Your task to perform on an android device: change the clock display to show seconds Image 0: 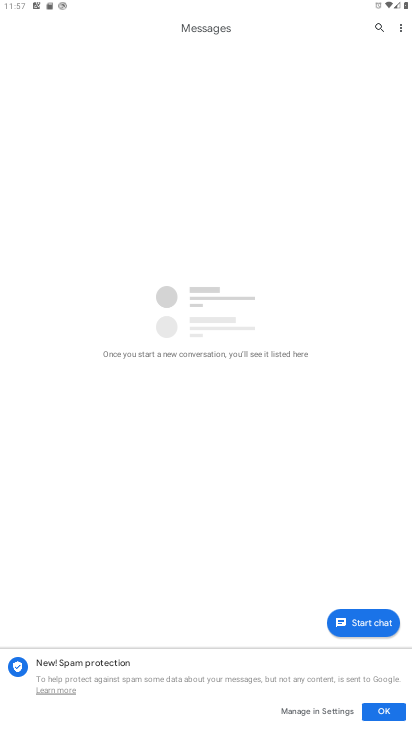
Step 0: press home button
Your task to perform on an android device: change the clock display to show seconds Image 1: 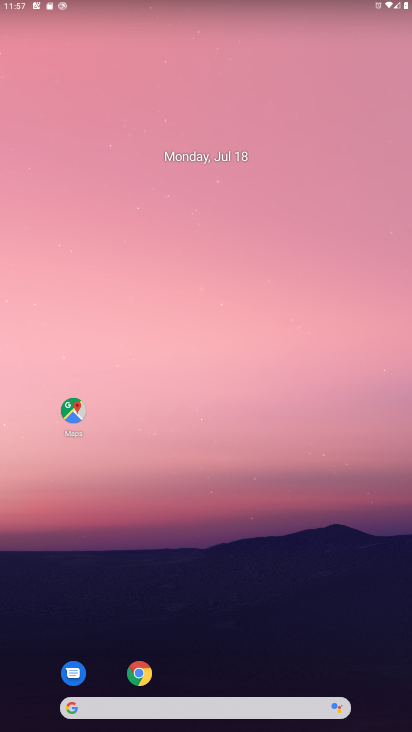
Step 1: drag from (193, 632) to (250, 256)
Your task to perform on an android device: change the clock display to show seconds Image 2: 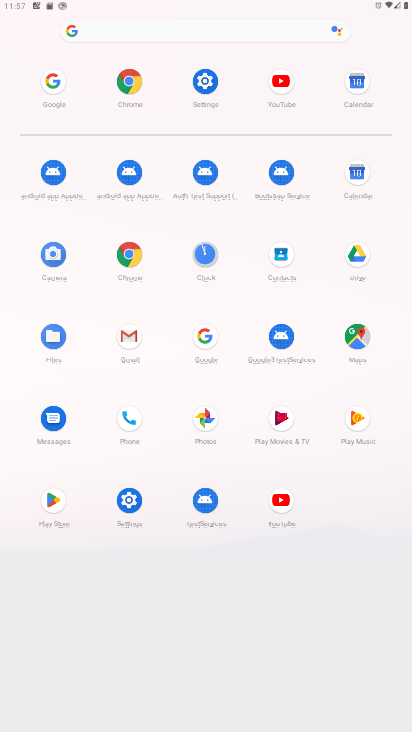
Step 2: click (218, 251)
Your task to perform on an android device: change the clock display to show seconds Image 3: 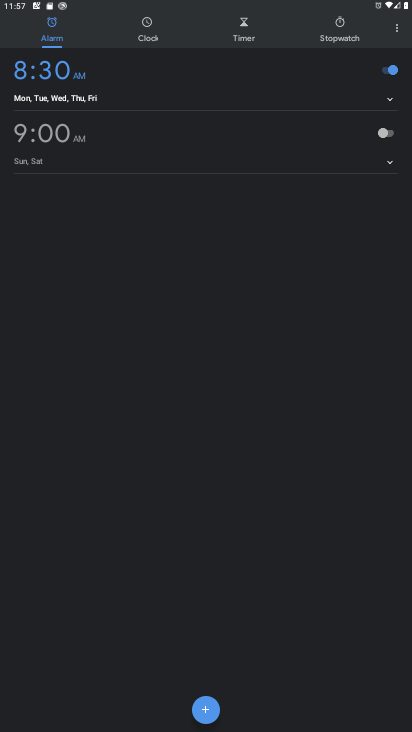
Step 3: click (399, 31)
Your task to perform on an android device: change the clock display to show seconds Image 4: 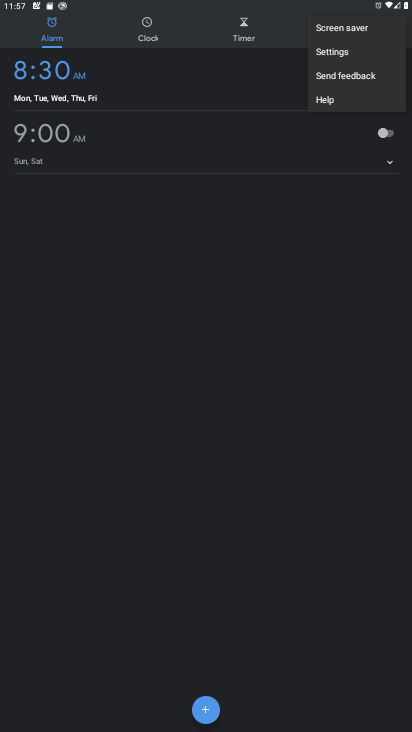
Step 4: click (357, 54)
Your task to perform on an android device: change the clock display to show seconds Image 5: 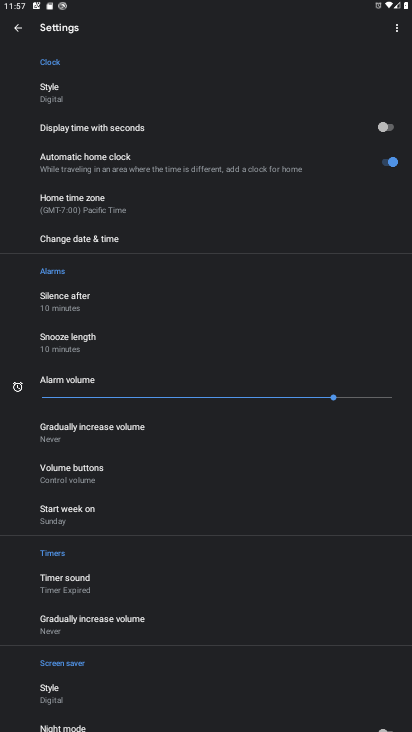
Step 5: drag from (195, 210) to (215, 455)
Your task to perform on an android device: change the clock display to show seconds Image 6: 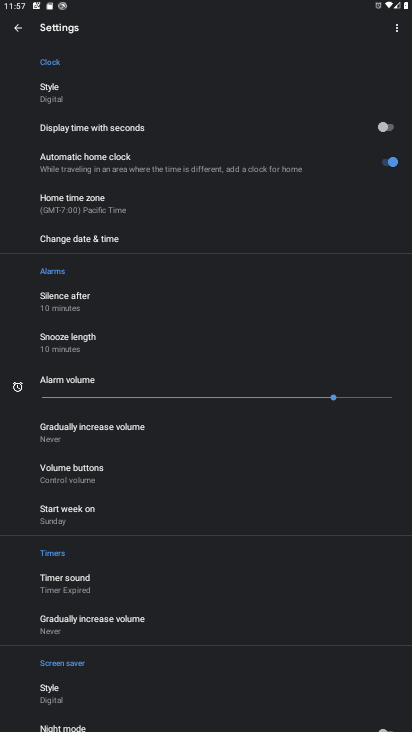
Step 6: click (388, 126)
Your task to perform on an android device: change the clock display to show seconds Image 7: 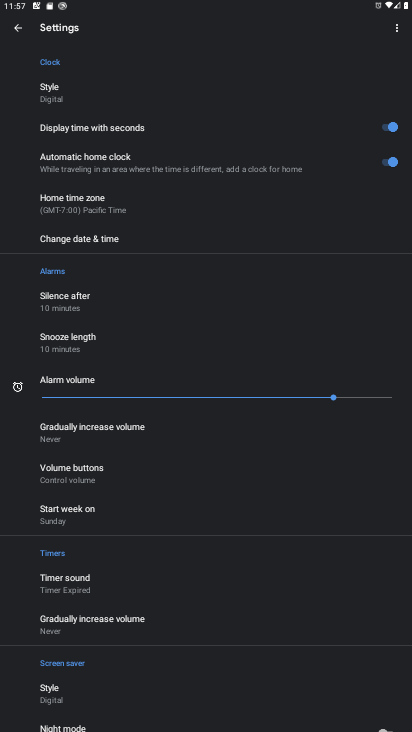
Step 7: task complete